Your task to perform on an android device: Open maps Image 0: 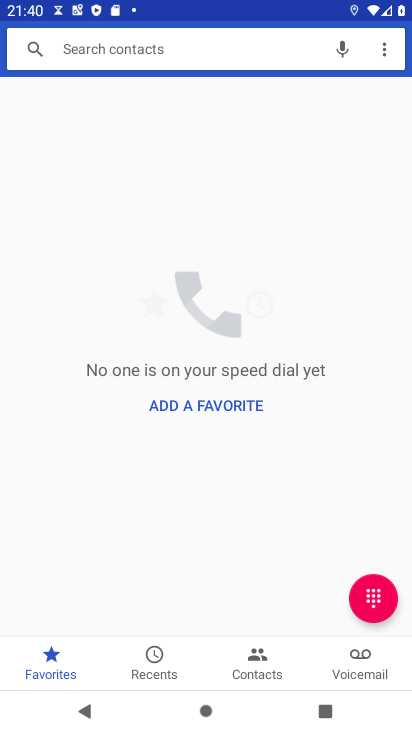
Step 0: press home button
Your task to perform on an android device: Open maps Image 1: 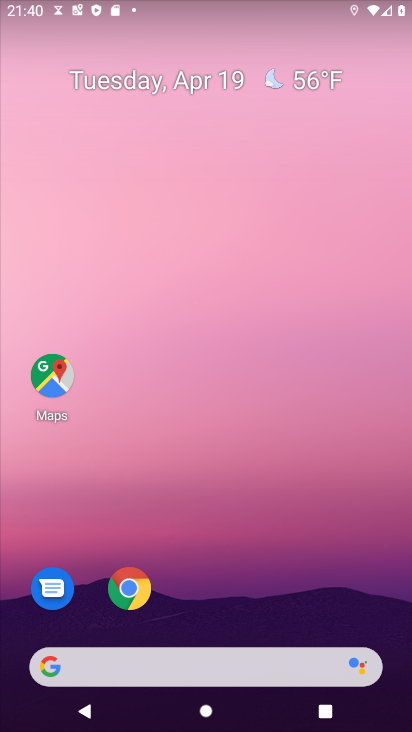
Step 1: click (51, 374)
Your task to perform on an android device: Open maps Image 2: 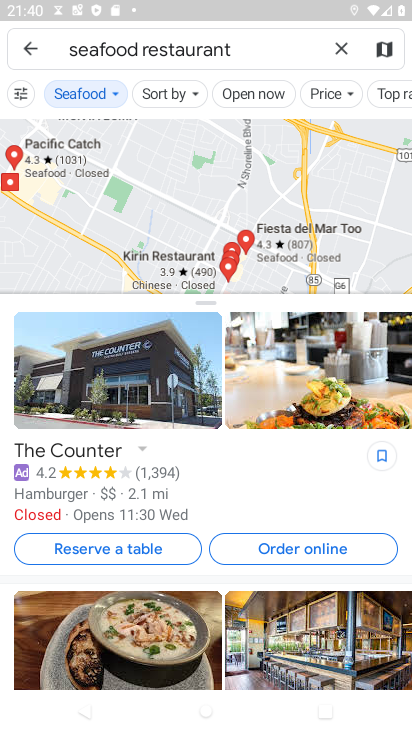
Step 2: task complete